Your task to perform on an android device: What is the recent news? Image 0: 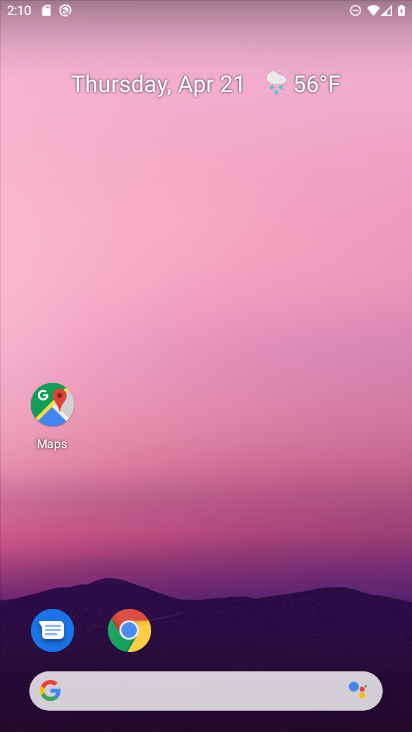
Step 0: drag from (15, 261) to (361, 227)
Your task to perform on an android device: What is the recent news? Image 1: 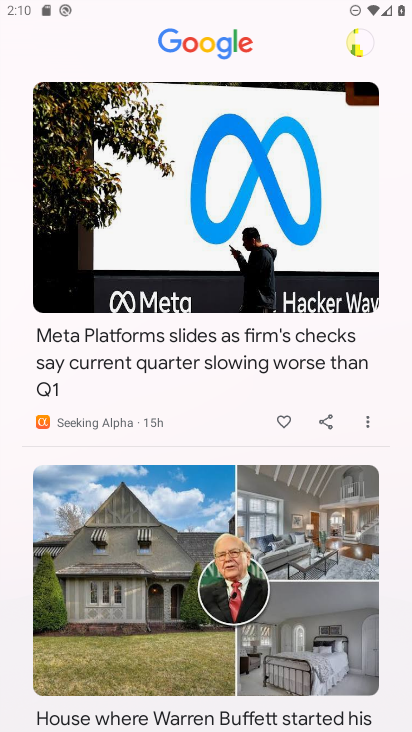
Step 1: task complete